Your task to perform on an android device: Open calendar and show me the fourth week of next month Image 0: 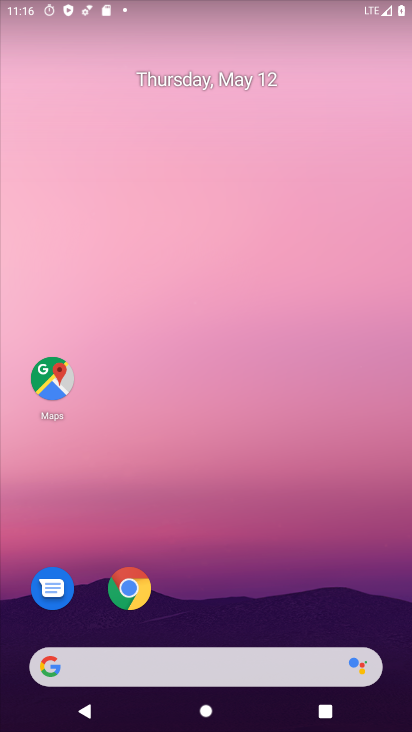
Step 0: drag from (307, 591) to (293, 75)
Your task to perform on an android device: Open calendar and show me the fourth week of next month Image 1: 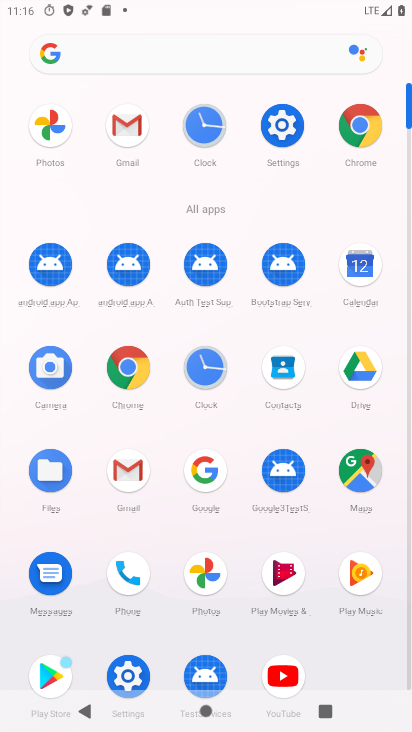
Step 1: click (356, 252)
Your task to perform on an android device: Open calendar and show me the fourth week of next month Image 2: 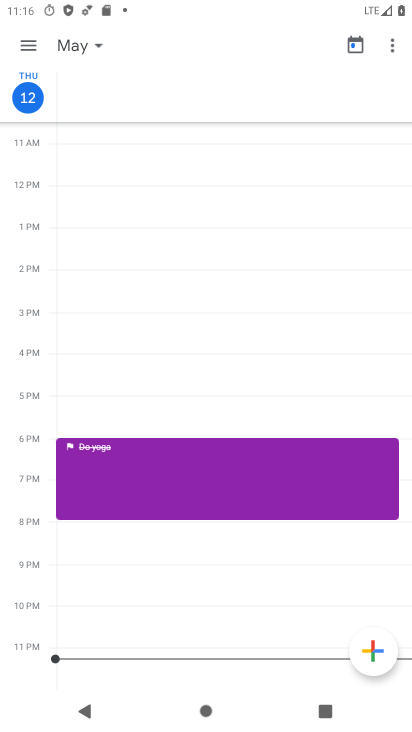
Step 2: click (66, 42)
Your task to perform on an android device: Open calendar and show me the fourth week of next month Image 3: 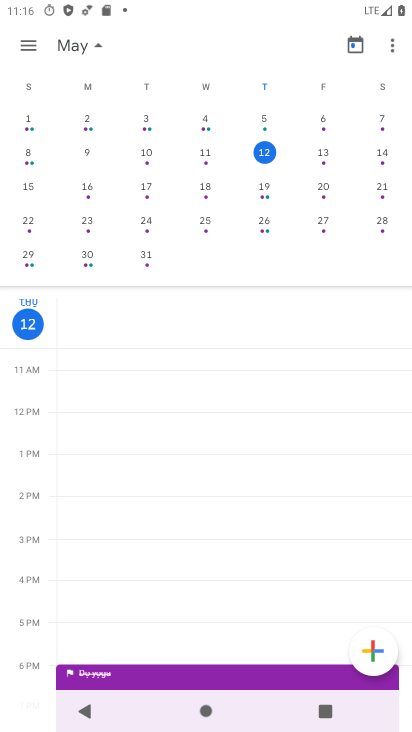
Step 3: drag from (377, 186) to (31, 176)
Your task to perform on an android device: Open calendar and show me the fourth week of next month Image 4: 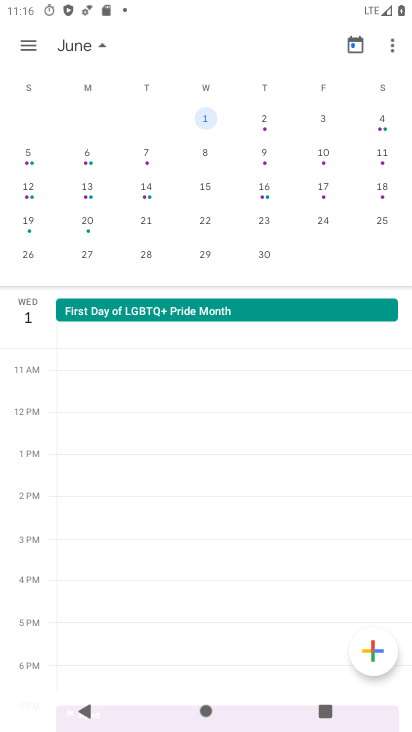
Step 4: click (26, 252)
Your task to perform on an android device: Open calendar and show me the fourth week of next month Image 5: 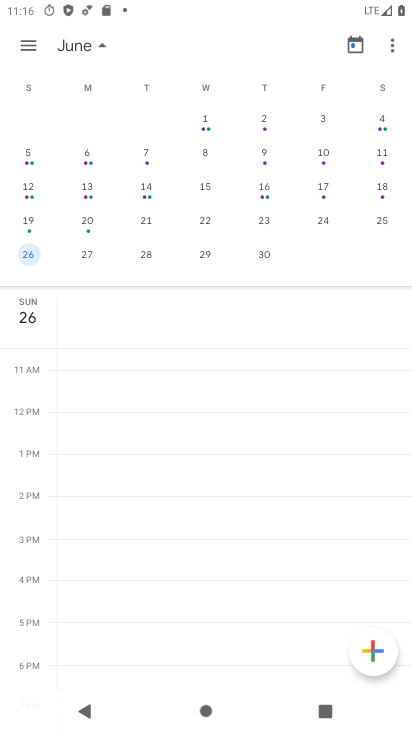
Step 5: task complete